Your task to perform on an android device: Open Google Maps and go to "Timeline" Image 0: 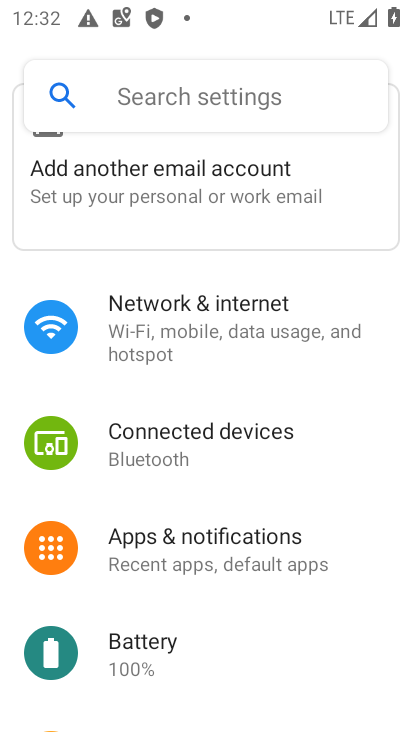
Step 0: press home button
Your task to perform on an android device: Open Google Maps and go to "Timeline" Image 1: 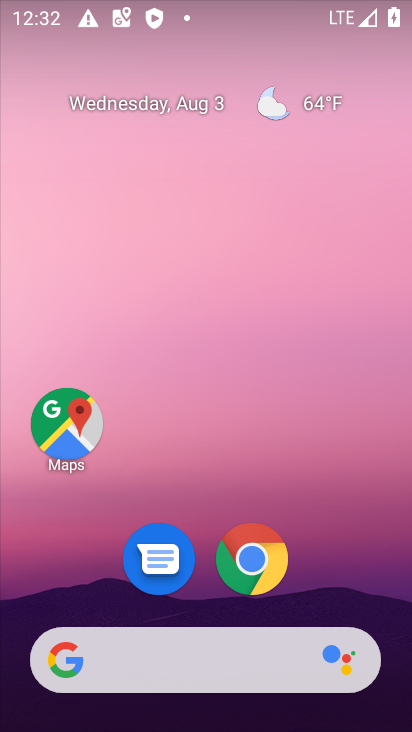
Step 1: drag from (196, 493) to (195, 72)
Your task to perform on an android device: Open Google Maps and go to "Timeline" Image 2: 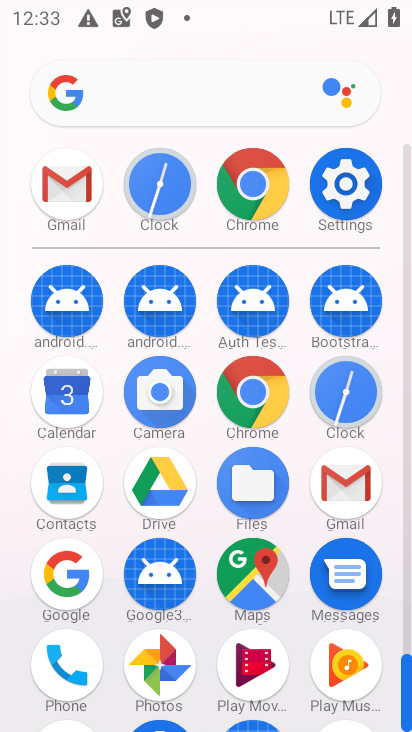
Step 2: click (260, 573)
Your task to perform on an android device: Open Google Maps and go to "Timeline" Image 3: 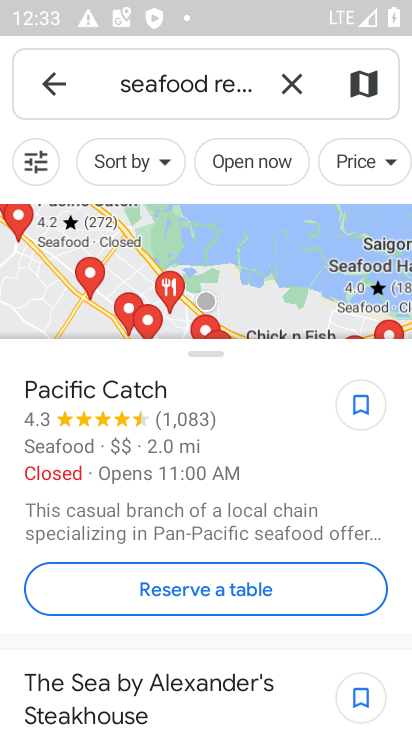
Step 3: click (54, 79)
Your task to perform on an android device: Open Google Maps and go to "Timeline" Image 4: 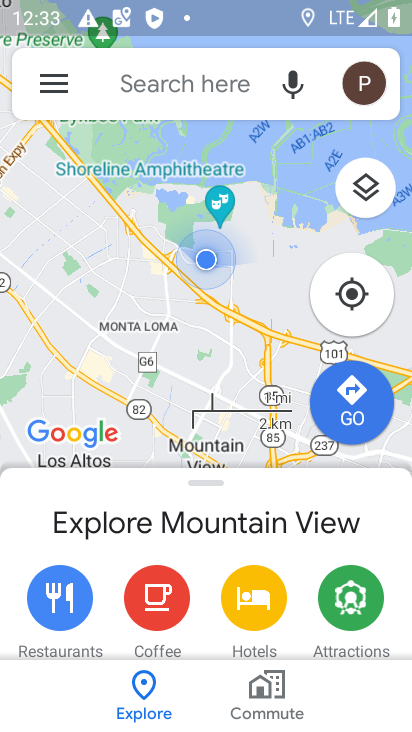
Step 4: click (61, 85)
Your task to perform on an android device: Open Google Maps and go to "Timeline" Image 5: 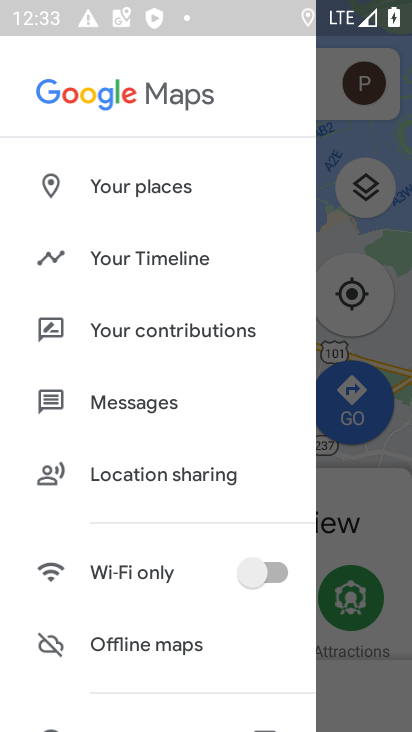
Step 5: click (136, 258)
Your task to perform on an android device: Open Google Maps and go to "Timeline" Image 6: 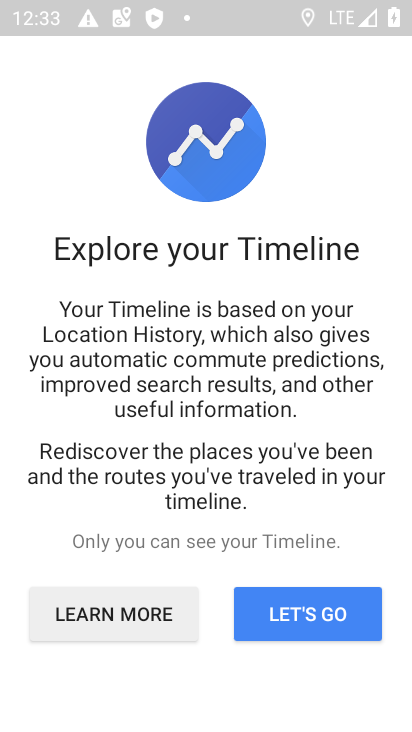
Step 6: click (269, 616)
Your task to perform on an android device: Open Google Maps and go to "Timeline" Image 7: 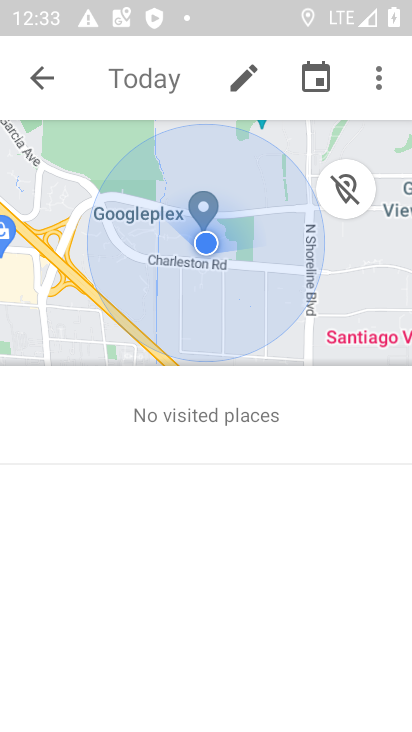
Step 7: task complete